Your task to perform on an android device: What's the news in Pakistan? Image 0: 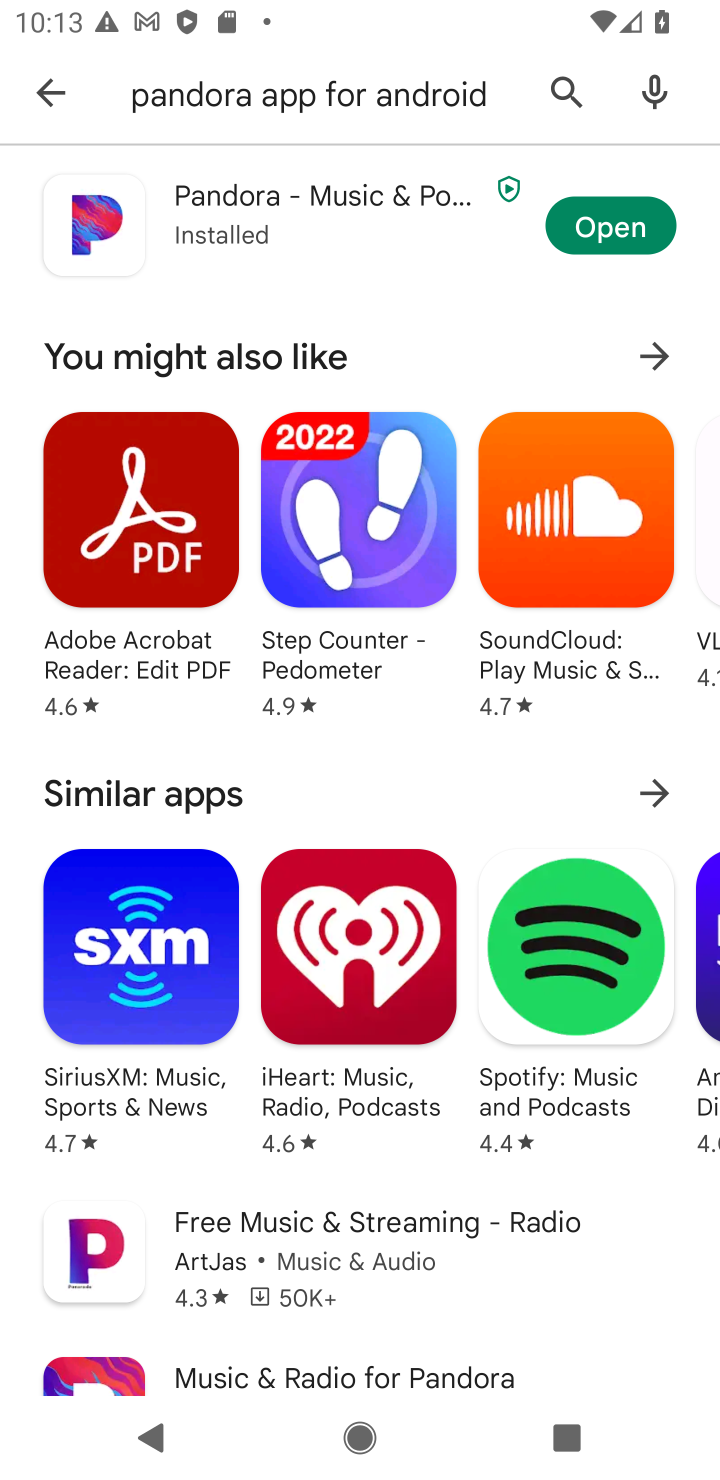
Step 0: press home button
Your task to perform on an android device: What's the news in Pakistan? Image 1: 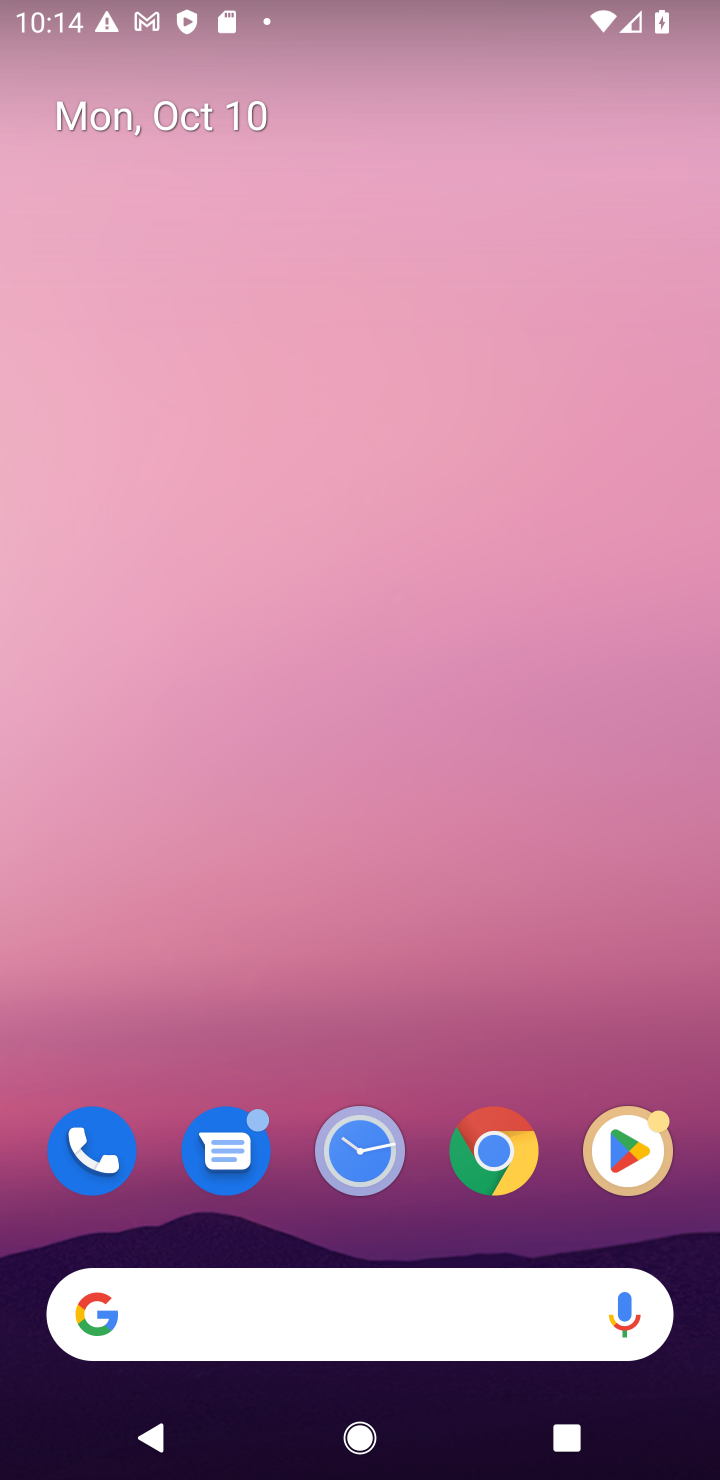
Step 1: click (502, 1186)
Your task to perform on an android device: What's the news in Pakistan? Image 2: 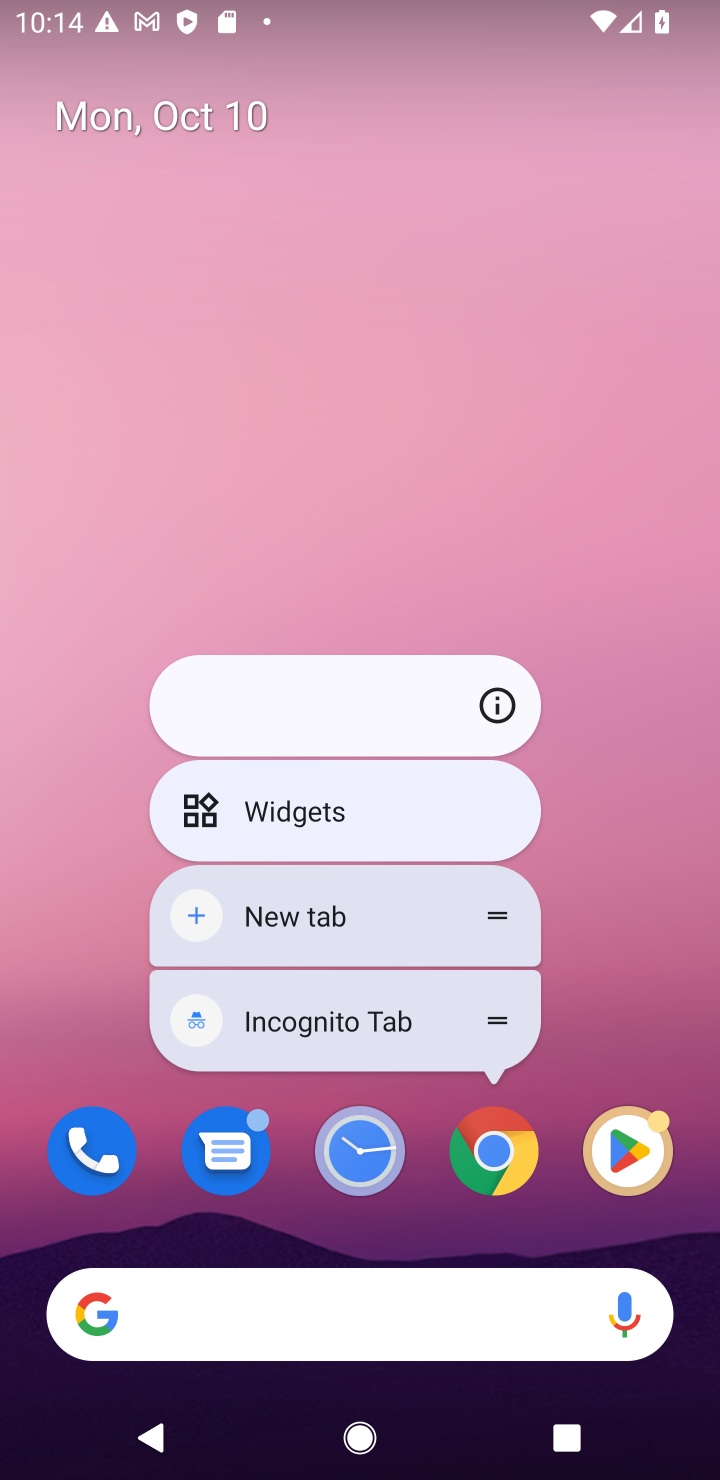
Step 2: click (495, 1161)
Your task to perform on an android device: What's the news in Pakistan? Image 3: 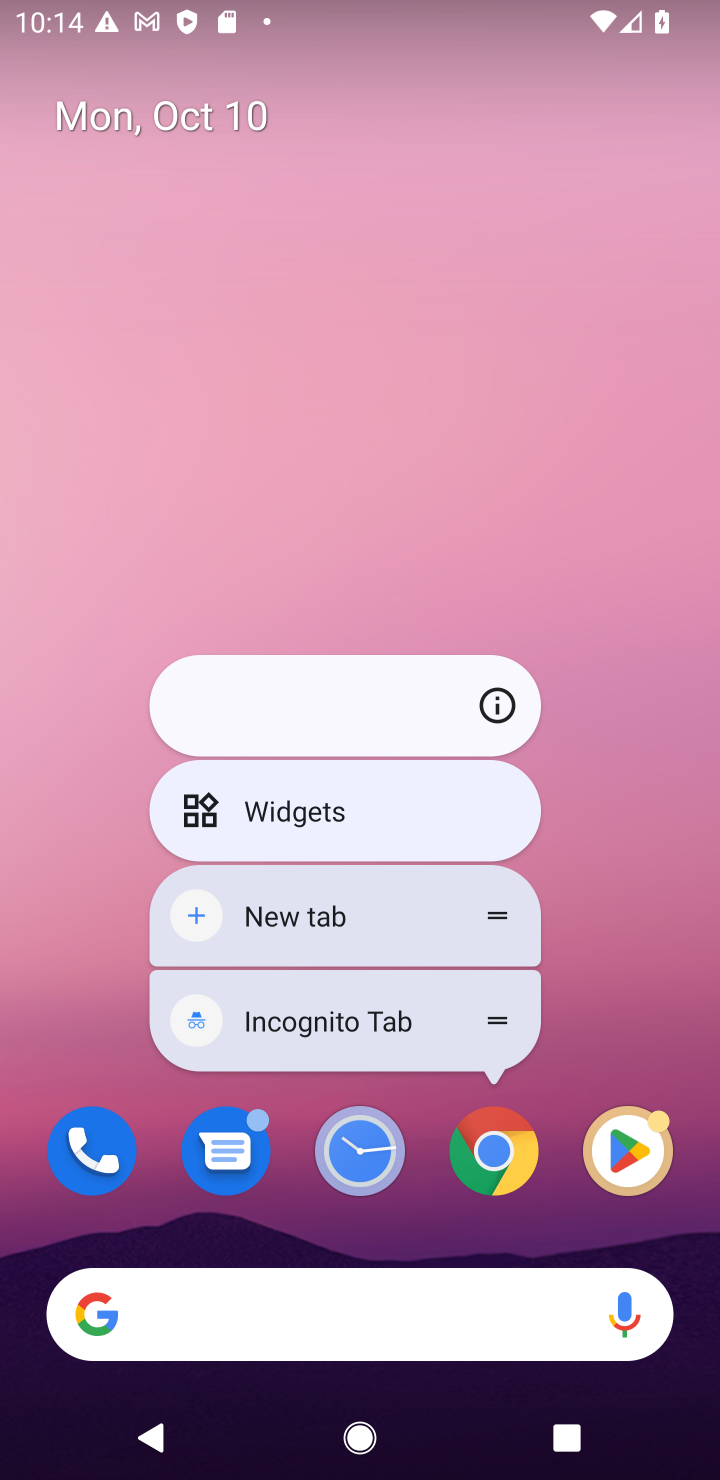
Step 3: click (495, 1156)
Your task to perform on an android device: What's the news in Pakistan? Image 4: 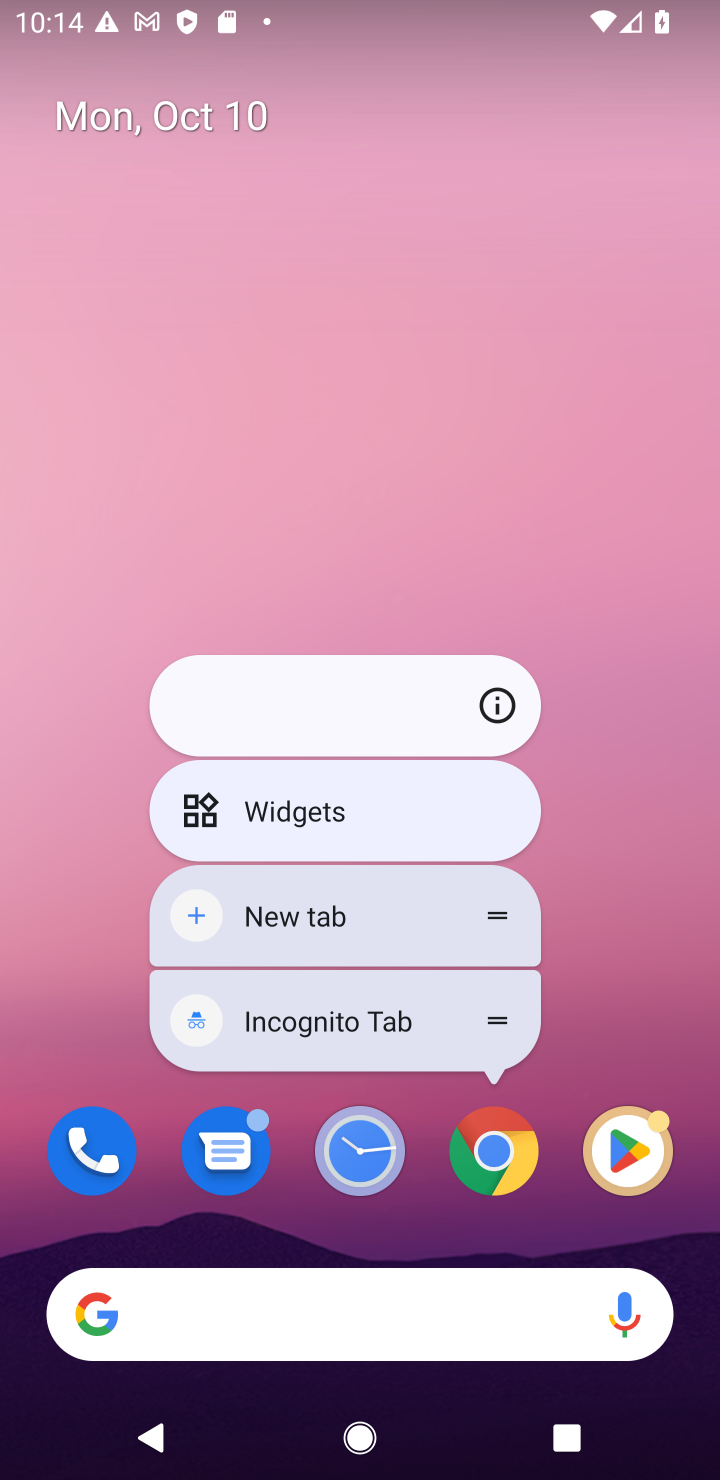
Step 4: click (495, 1156)
Your task to perform on an android device: What's the news in Pakistan? Image 5: 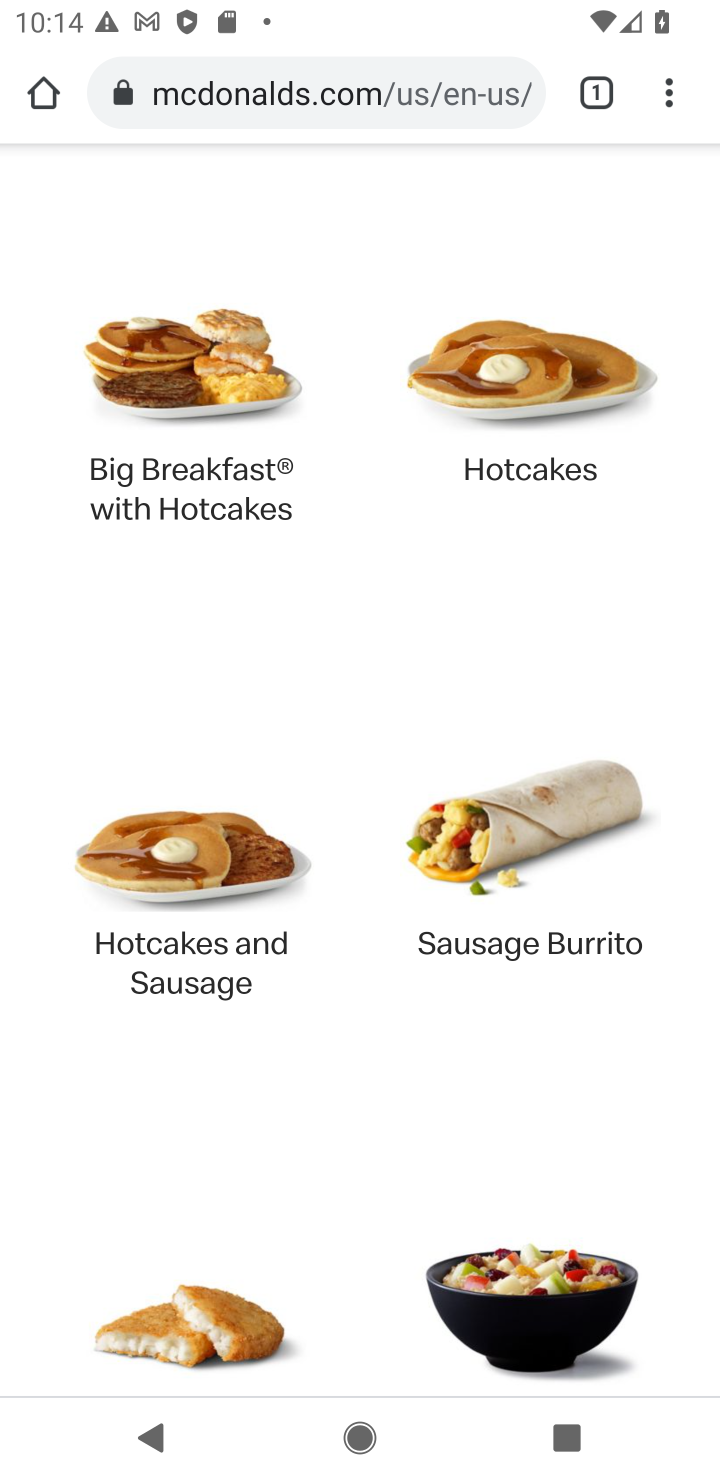
Step 5: click (368, 96)
Your task to perform on an android device: What's the news in Pakistan? Image 6: 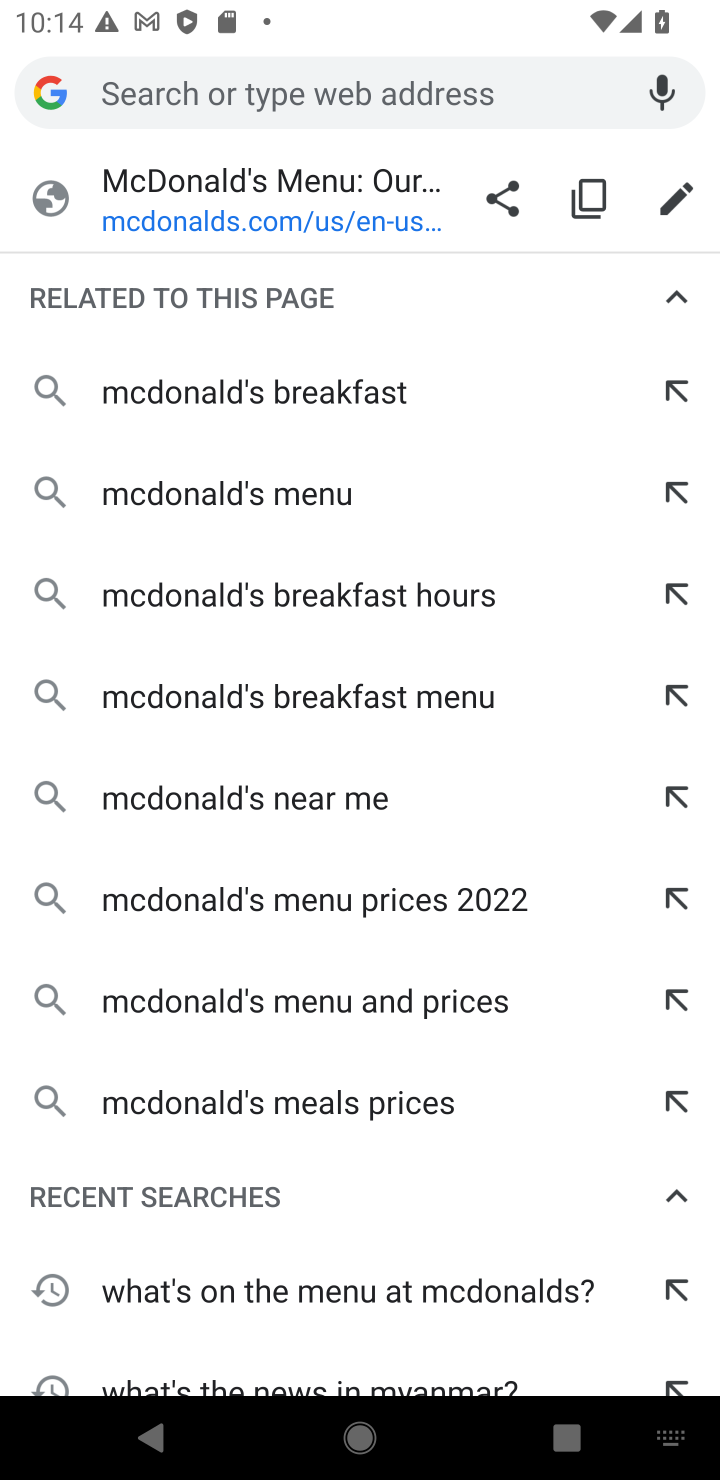
Step 6: type "What's the news in Pakistan?"
Your task to perform on an android device: What's the news in Pakistan? Image 7: 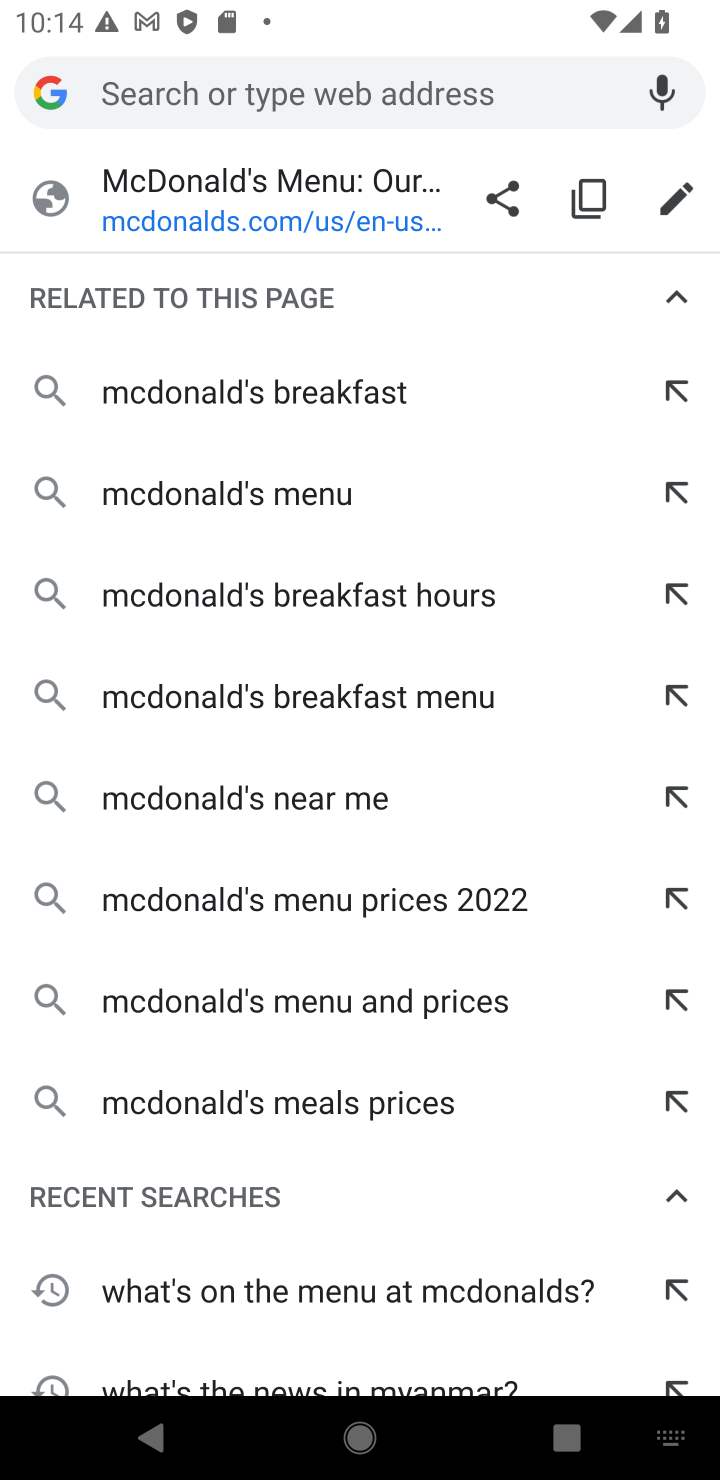
Step 7: click (180, 71)
Your task to perform on an android device: What's the news in Pakistan? Image 8: 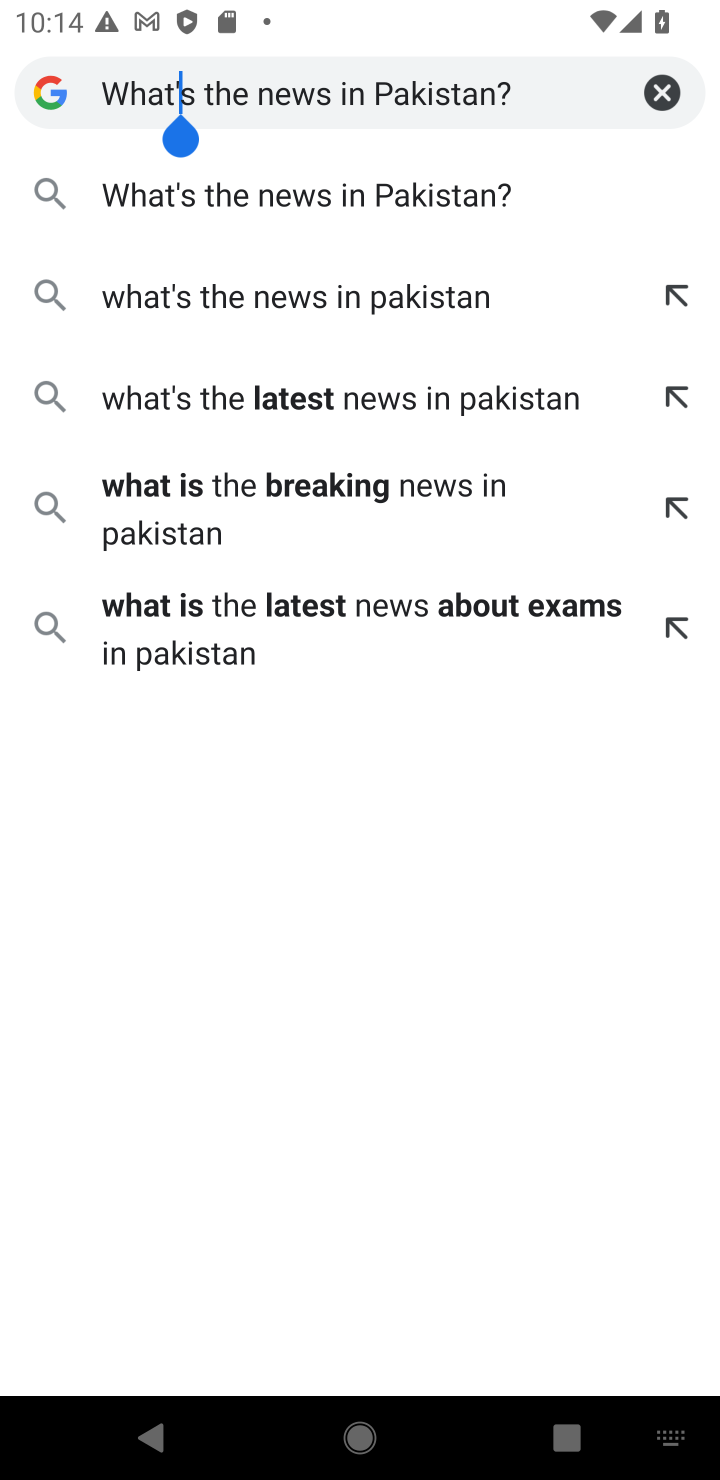
Step 8: click (237, 188)
Your task to perform on an android device: What's the news in Pakistan? Image 9: 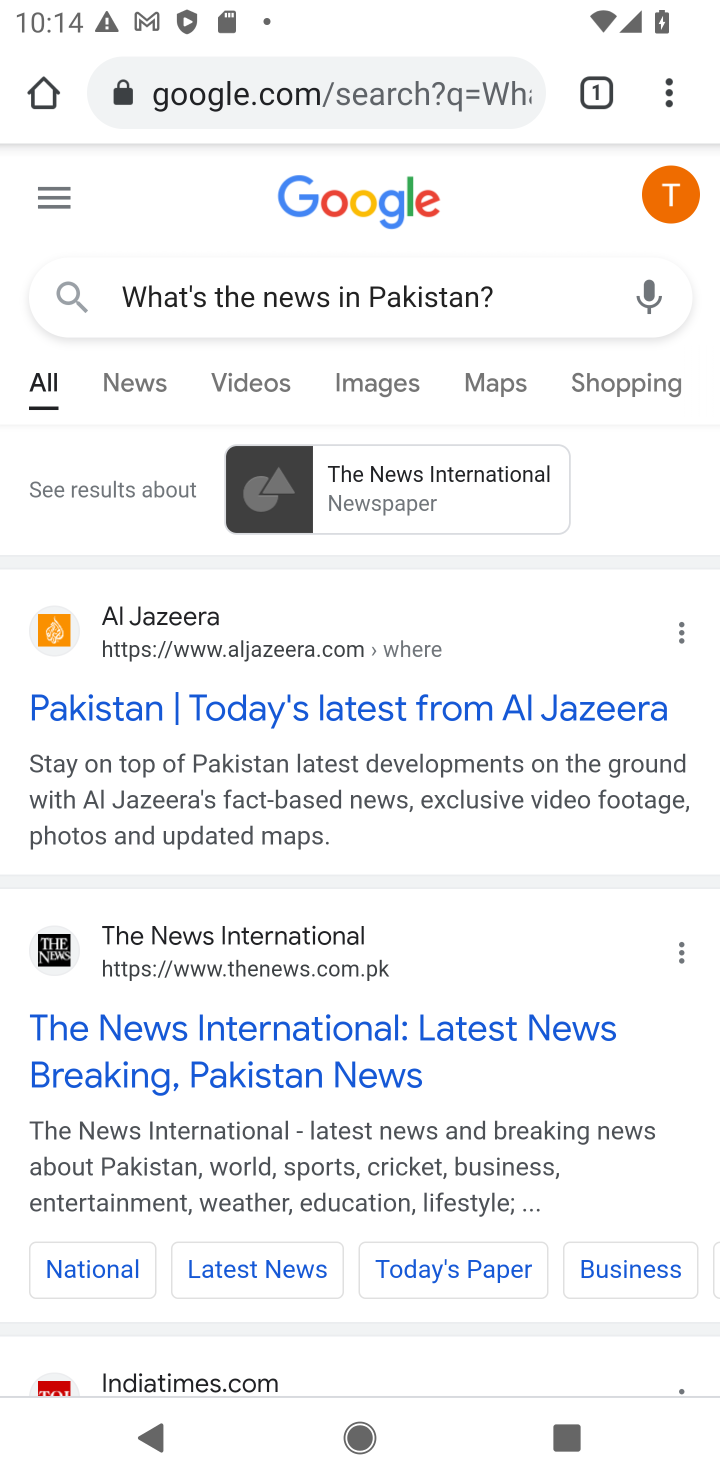
Step 9: click (135, 365)
Your task to perform on an android device: What's the news in Pakistan? Image 10: 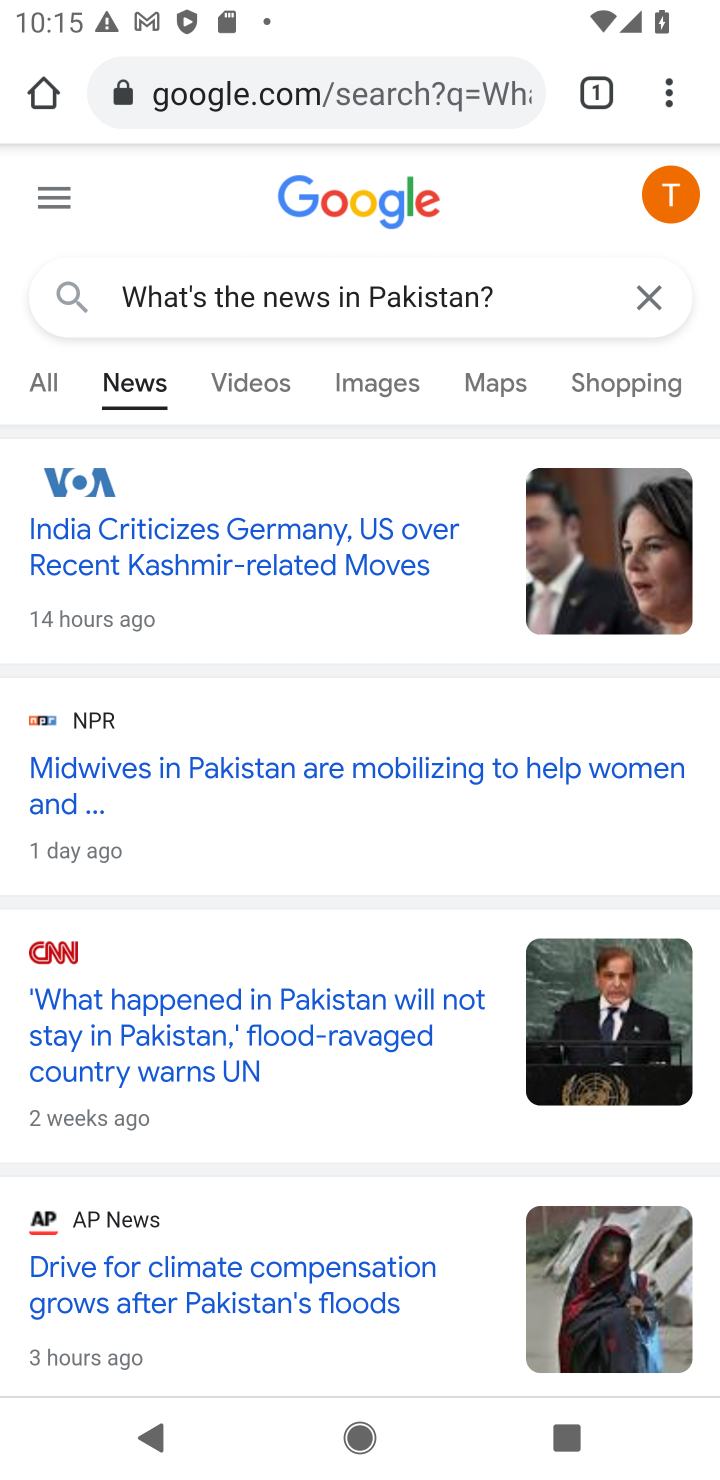
Step 10: task complete